Your task to perform on an android device: turn off javascript in the chrome app Image 0: 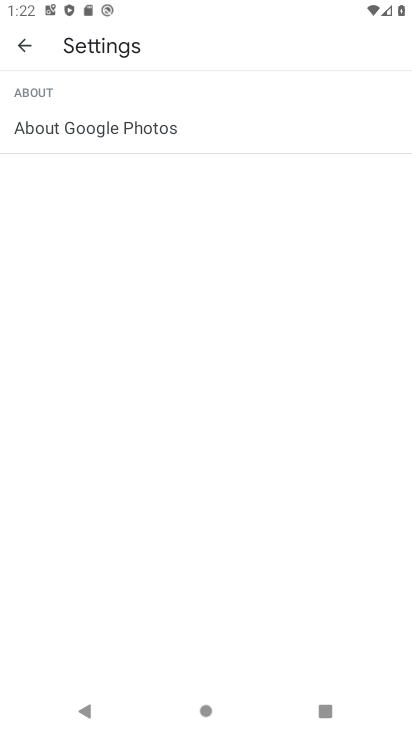
Step 0: press home button
Your task to perform on an android device: turn off javascript in the chrome app Image 1: 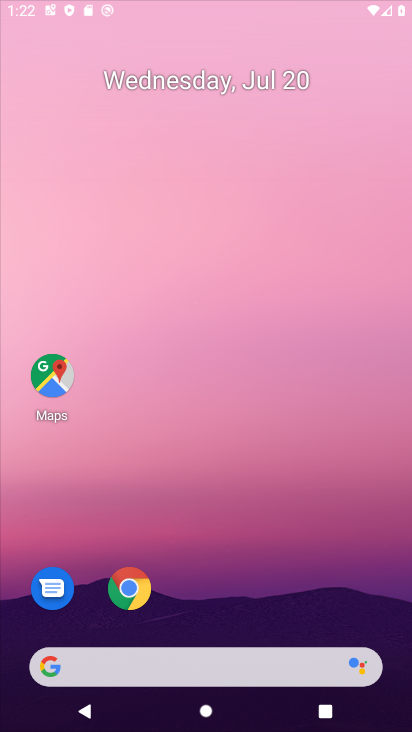
Step 1: drag from (386, 668) to (204, 115)
Your task to perform on an android device: turn off javascript in the chrome app Image 2: 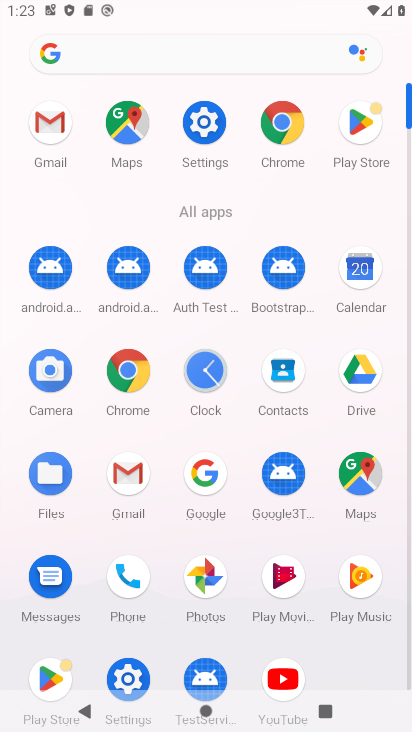
Step 2: click (121, 373)
Your task to perform on an android device: turn off javascript in the chrome app Image 3: 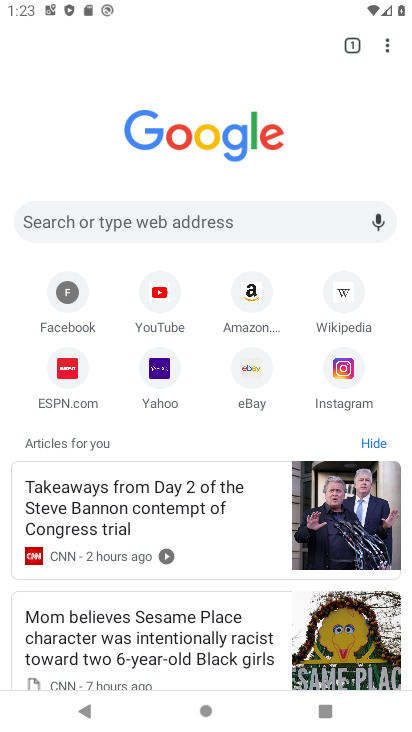
Step 3: click (384, 45)
Your task to perform on an android device: turn off javascript in the chrome app Image 4: 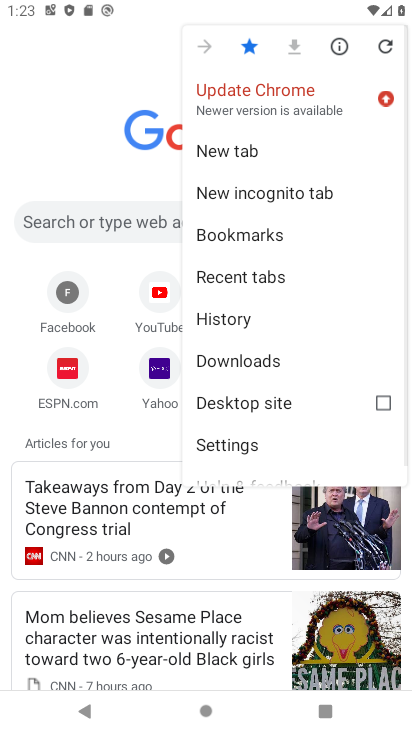
Step 4: click (242, 438)
Your task to perform on an android device: turn off javascript in the chrome app Image 5: 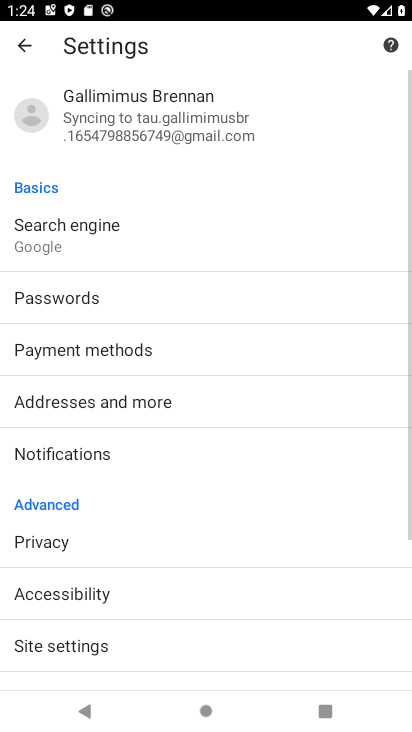
Step 5: click (97, 642)
Your task to perform on an android device: turn off javascript in the chrome app Image 6: 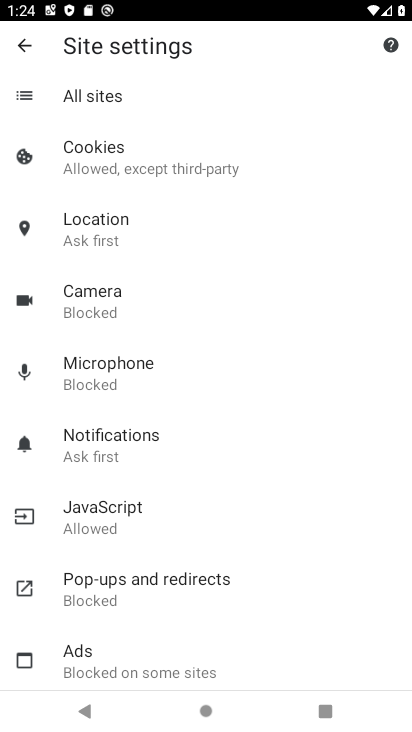
Step 6: click (123, 525)
Your task to perform on an android device: turn off javascript in the chrome app Image 7: 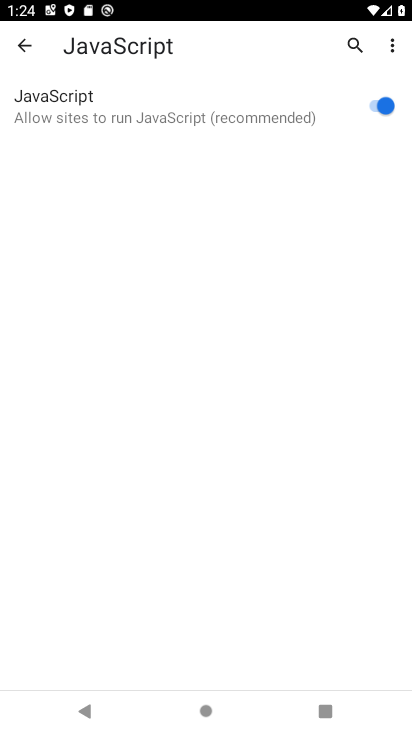
Step 7: click (364, 99)
Your task to perform on an android device: turn off javascript in the chrome app Image 8: 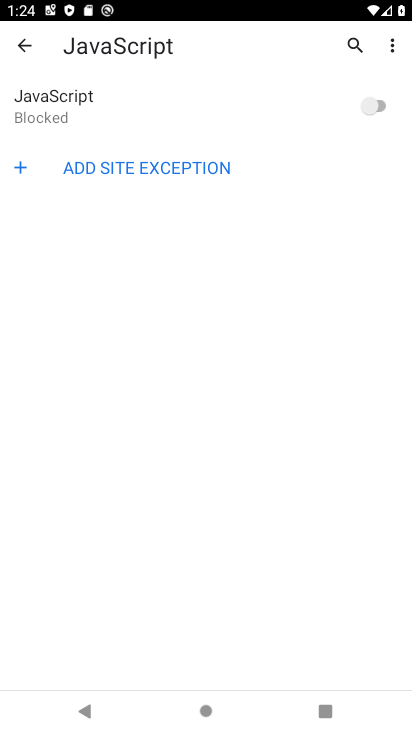
Step 8: task complete